Your task to perform on an android device: Where can I buy a nice beach chair? Image 0: 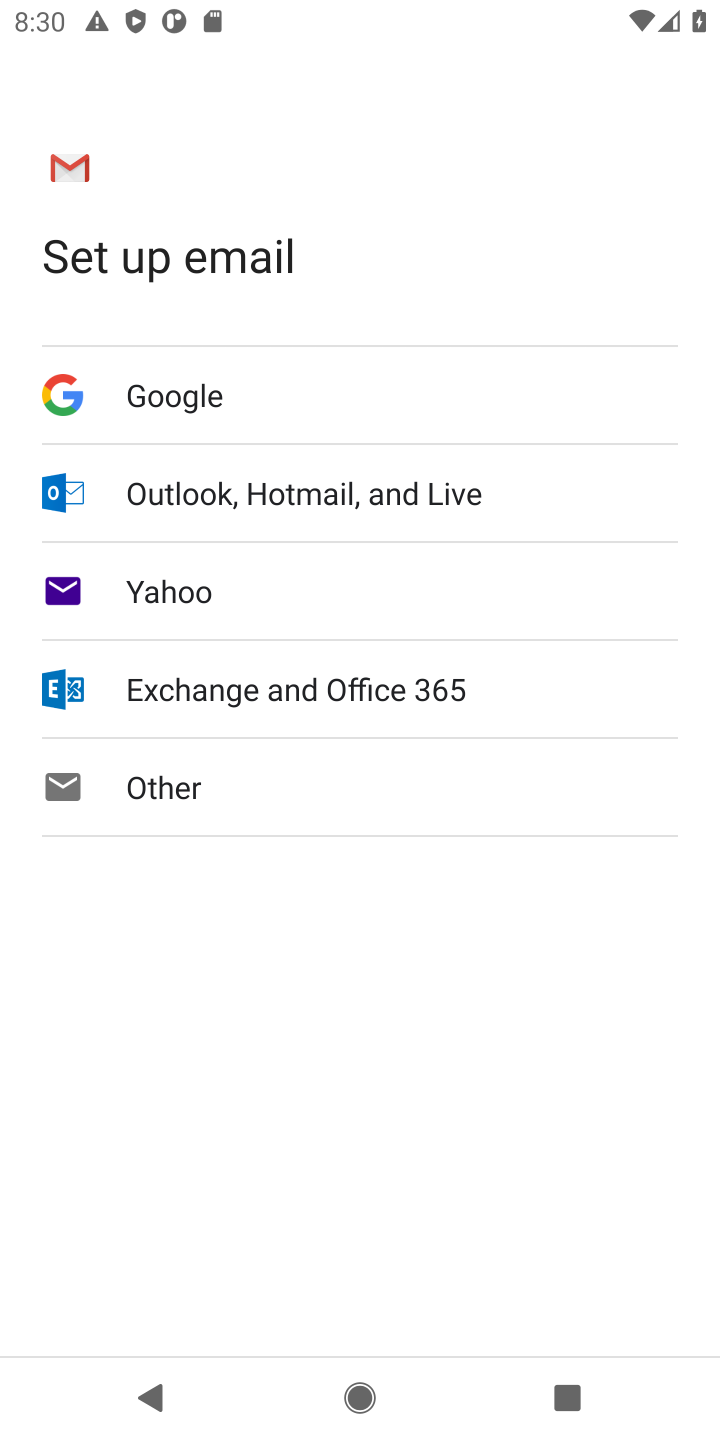
Step 0: press home button
Your task to perform on an android device: Where can I buy a nice beach chair? Image 1: 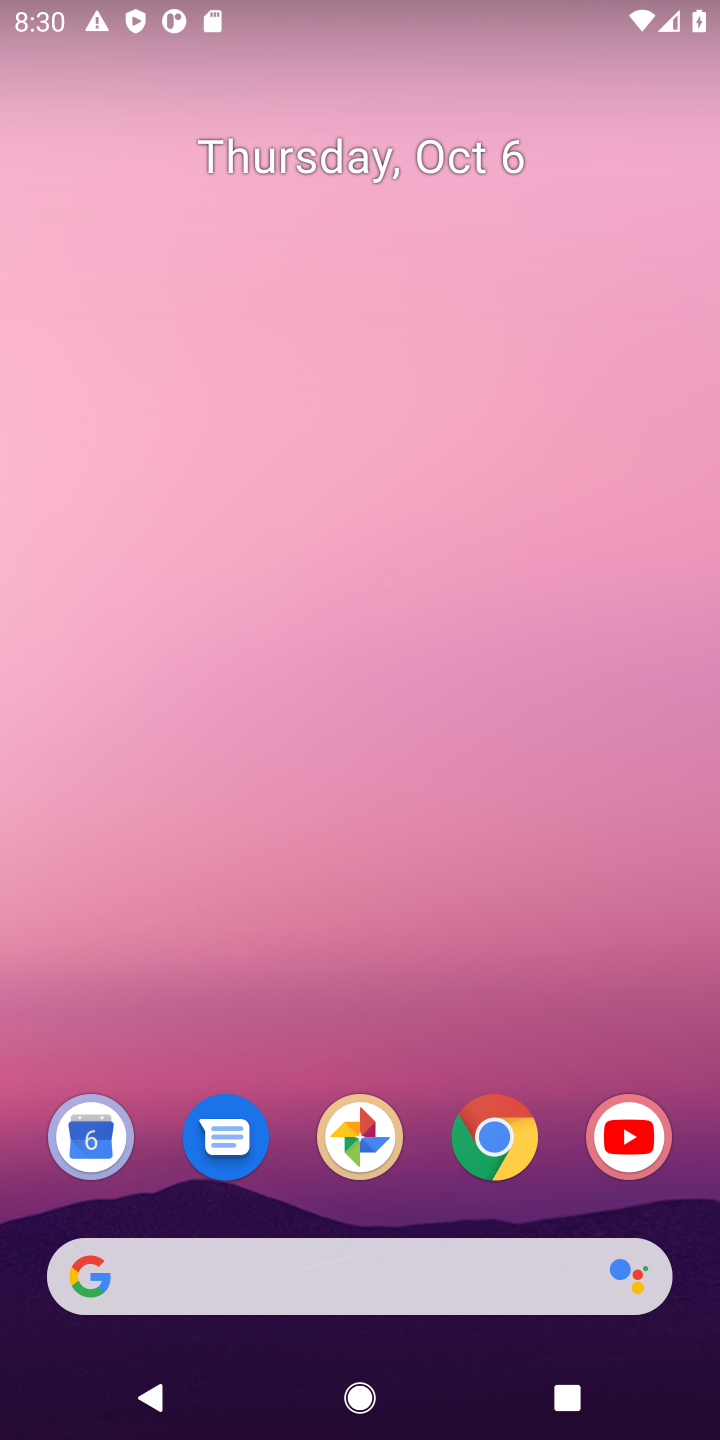
Step 1: click (493, 1139)
Your task to perform on an android device: Where can I buy a nice beach chair? Image 2: 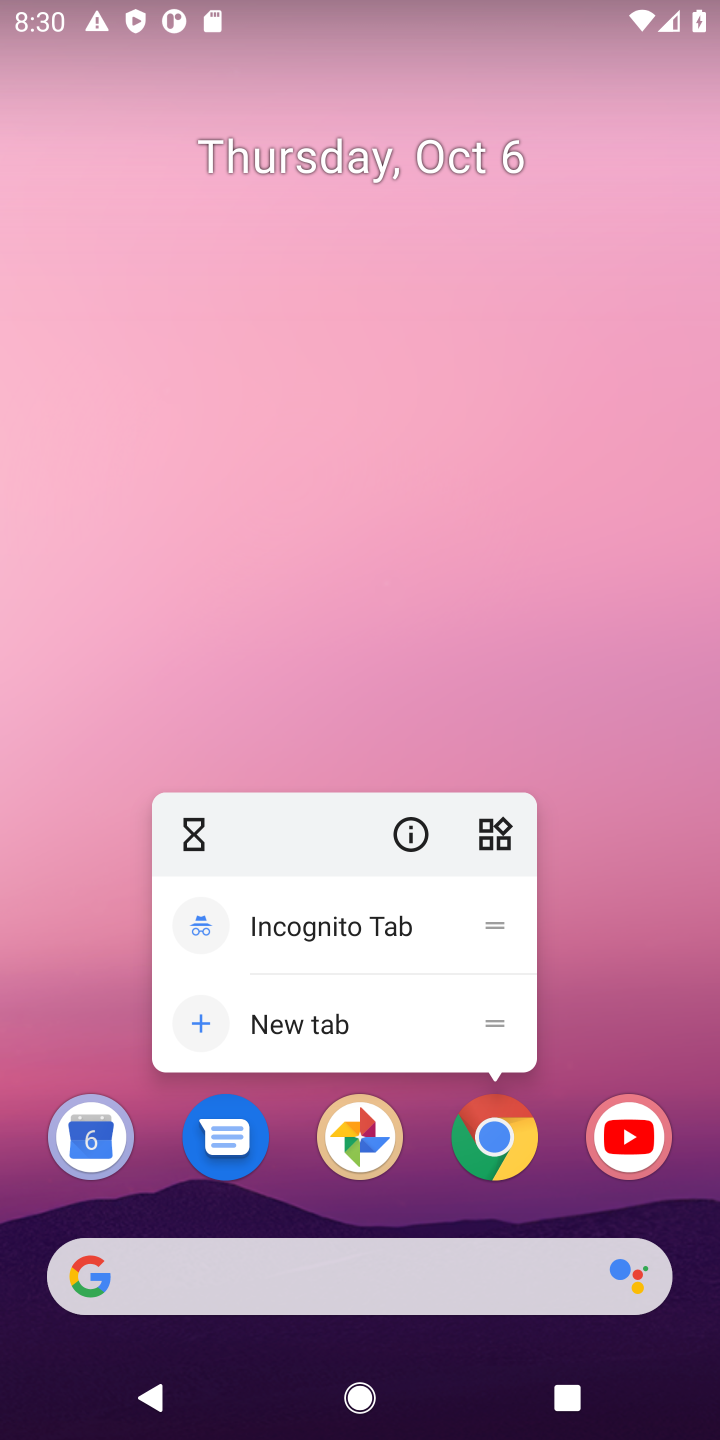
Step 2: click (493, 1139)
Your task to perform on an android device: Where can I buy a nice beach chair? Image 3: 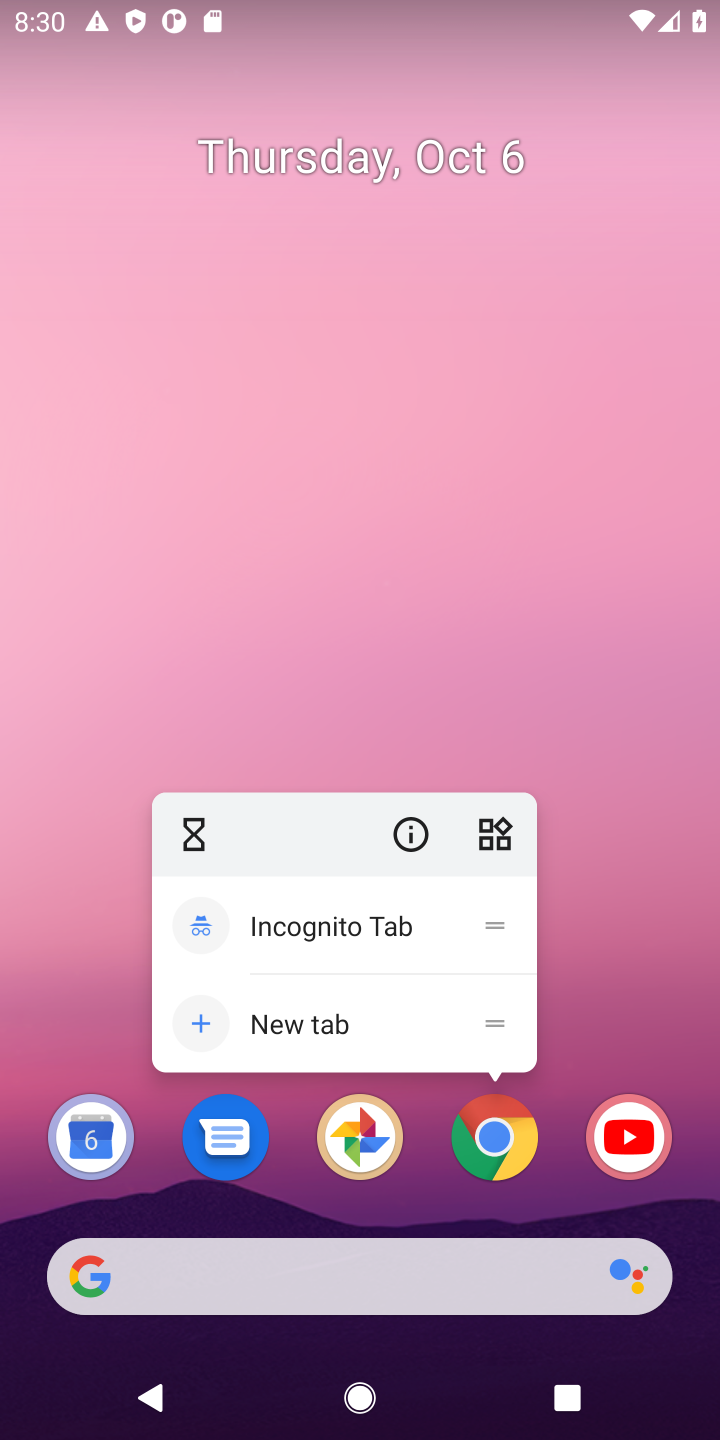
Step 3: click (493, 1139)
Your task to perform on an android device: Where can I buy a nice beach chair? Image 4: 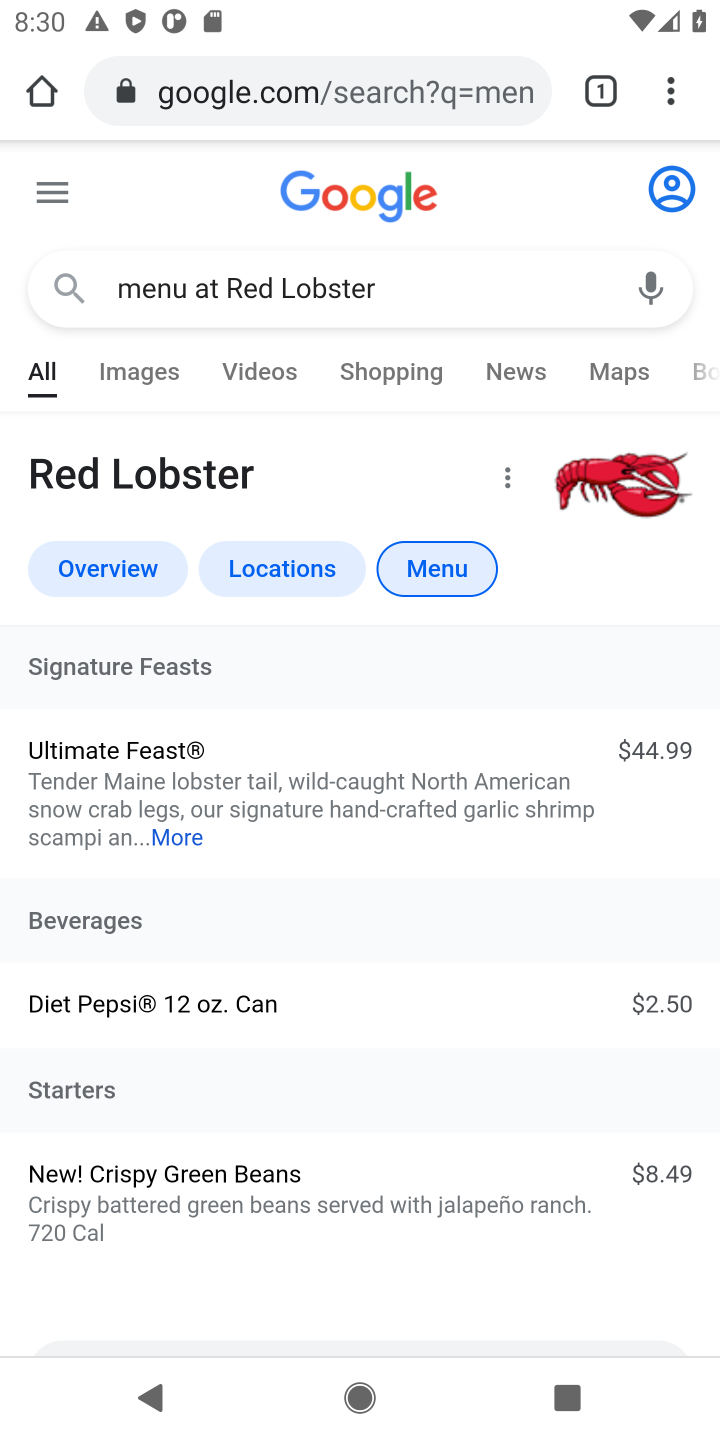
Step 4: click (438, 291)
Your task to perform on an android device: Where can I buy a nice beach chair? Image 5: 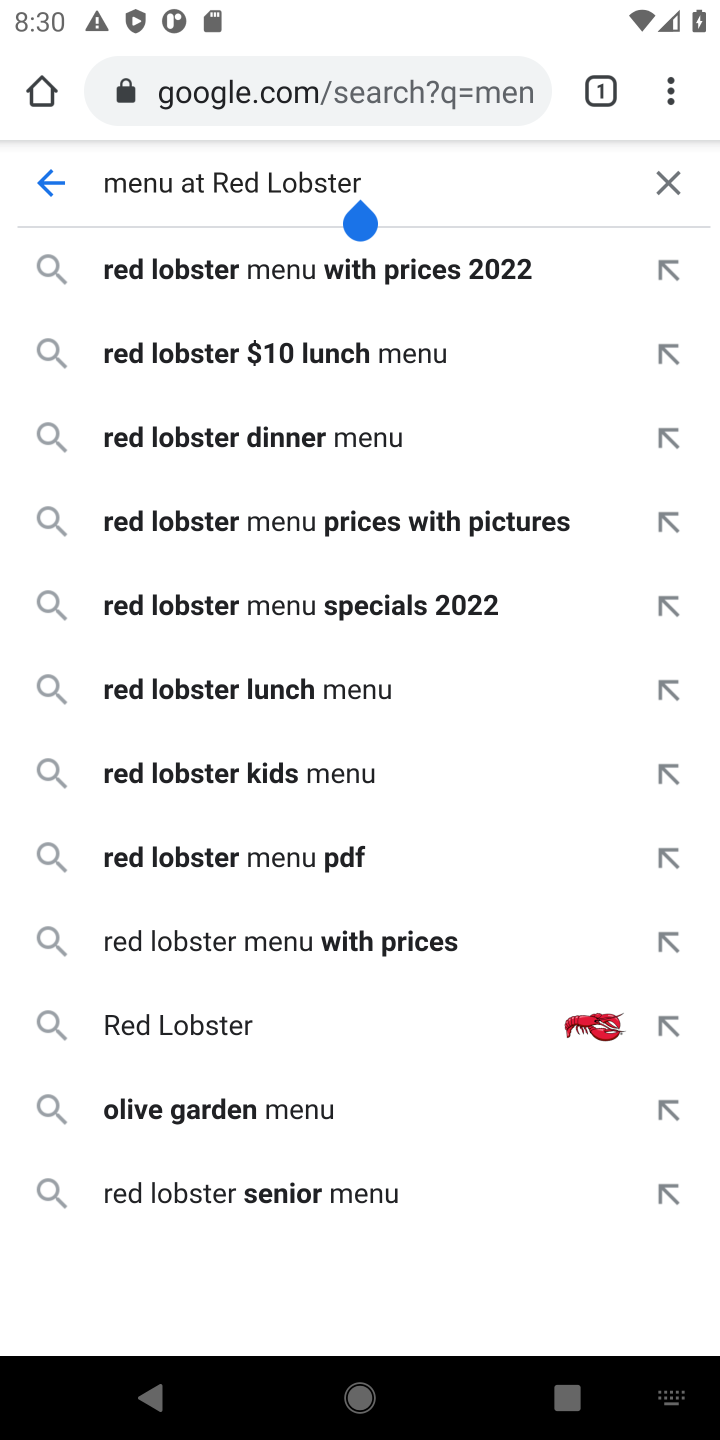
Step 5: click (660, 183)
Your task to perform on an android device: Where can I buy a nice beach chair? Image 6: 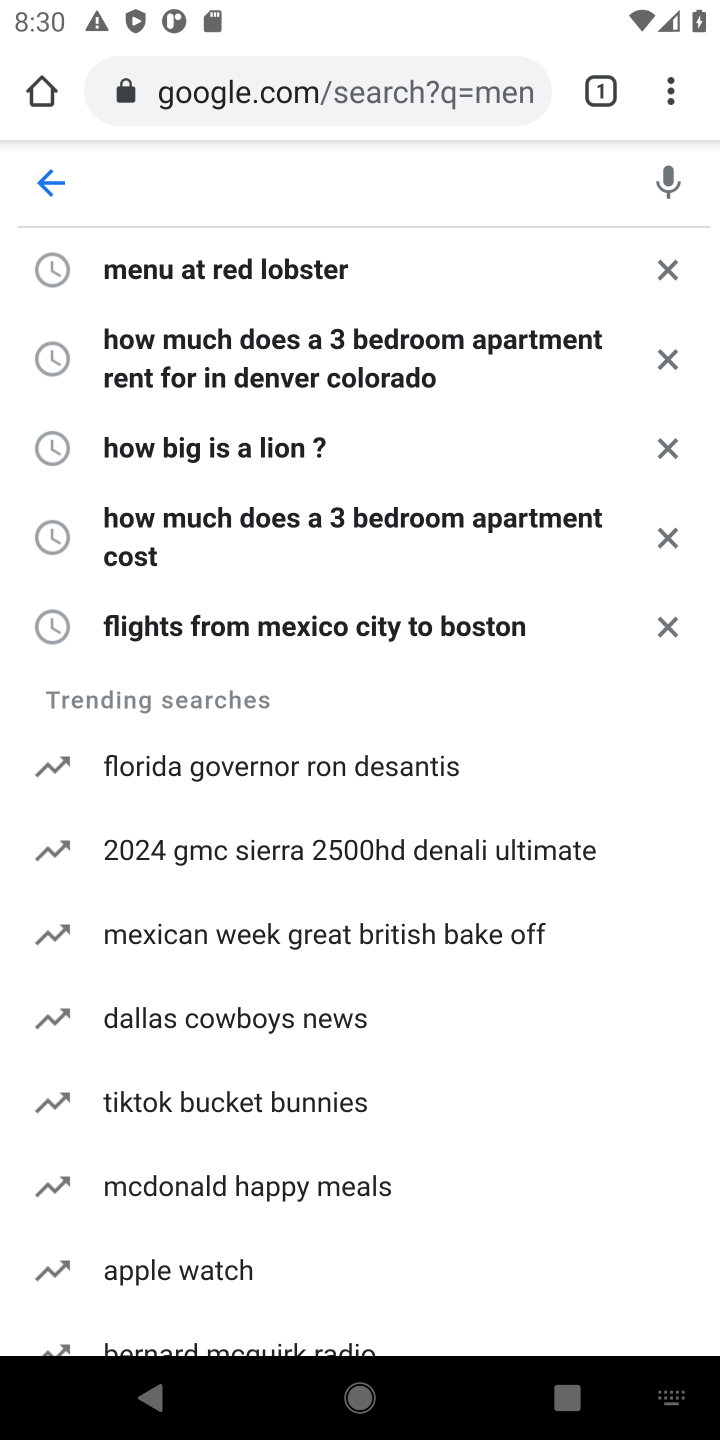
Step 6: type "Where can I buy a nice beach chair?"
Your task to perform on an android device: Where can I buy a nice beach chair? Image 7: 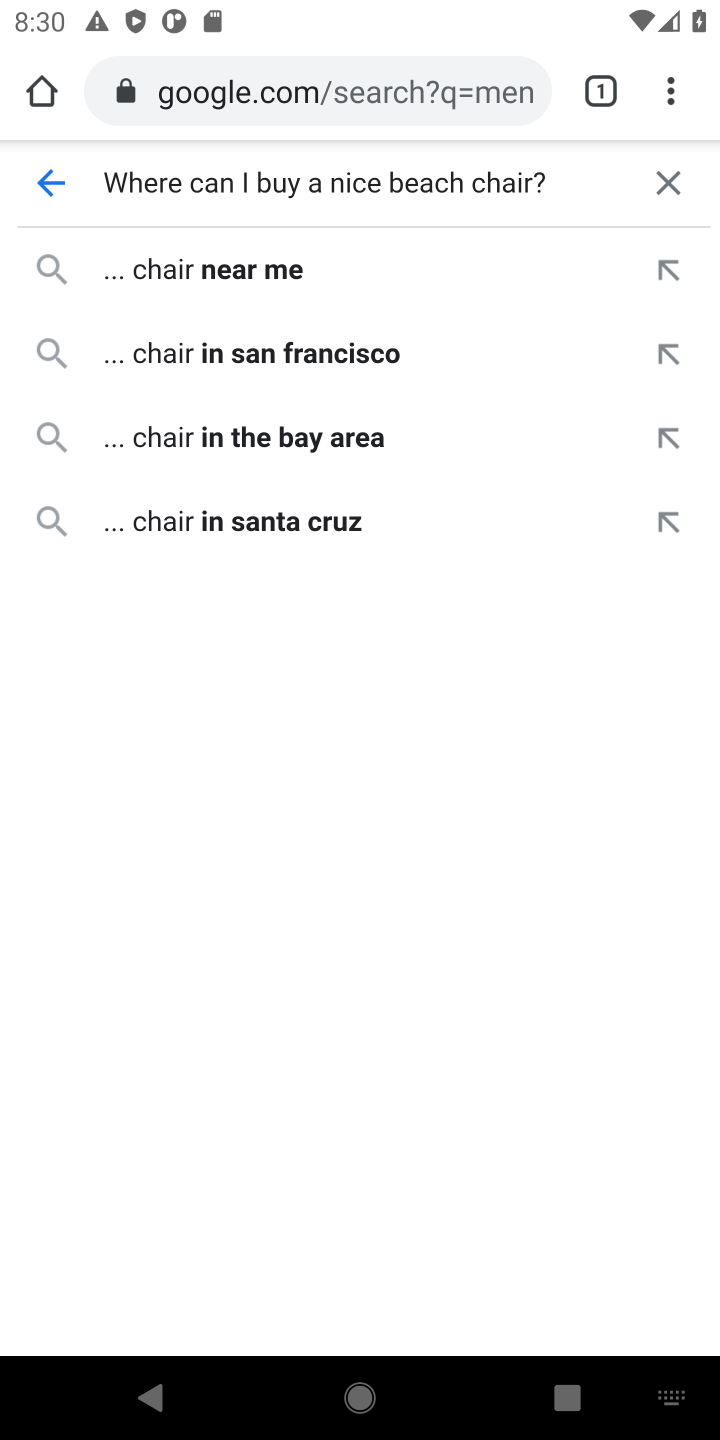
Step 7: click (255, 275)
Your task to perform on an android device: Where can I buy a nice beach chair? Image 8: 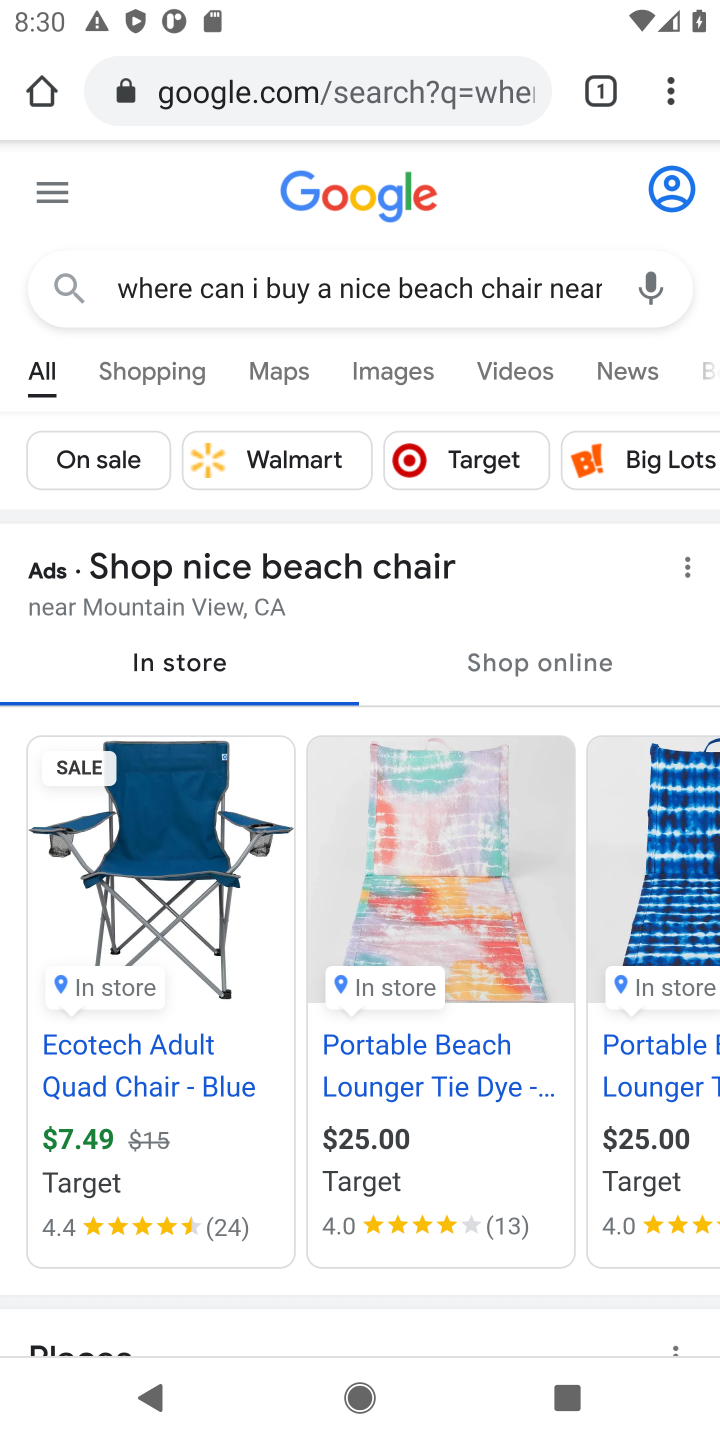
Step 8: task complete